Your task to perform on an android device: Add "razer blade" to the cart on costco.com Image 0: 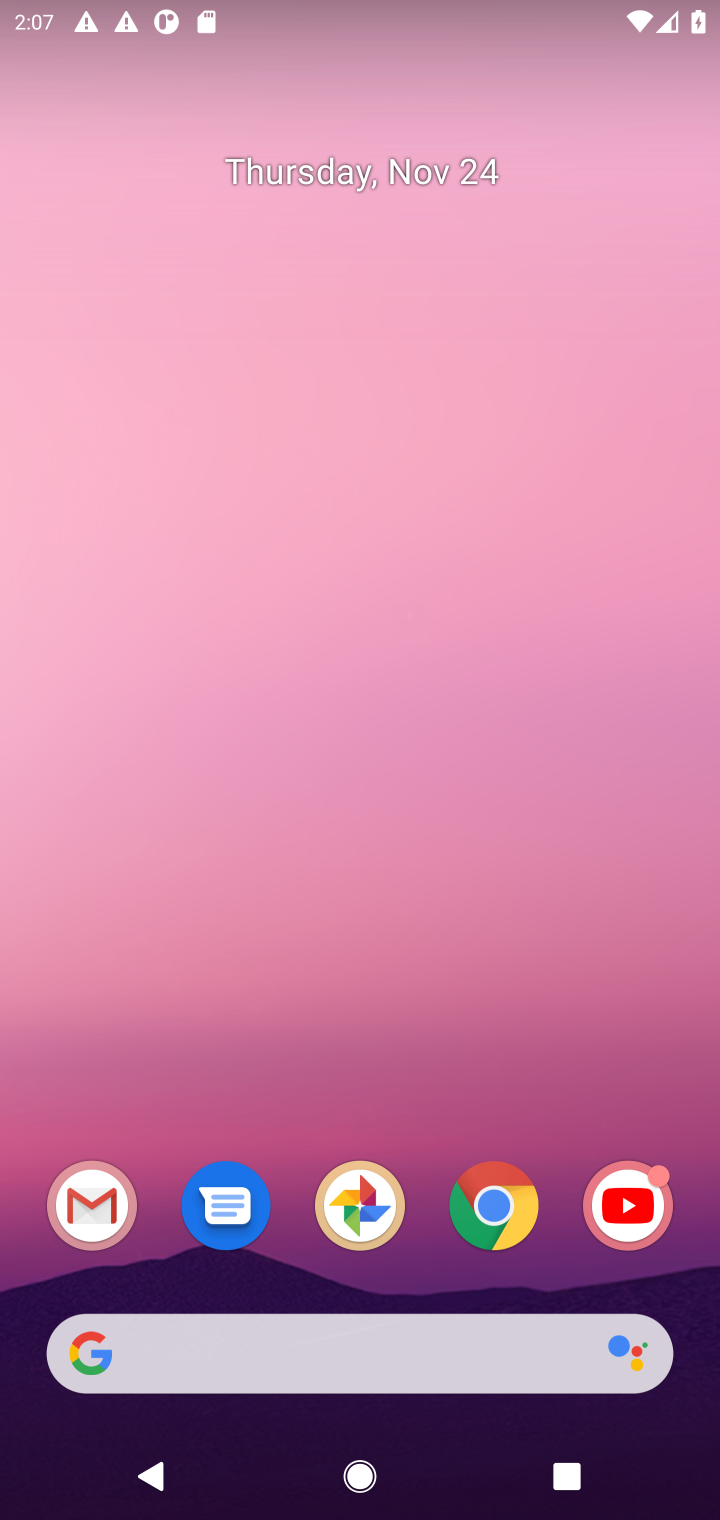
Step 0: press home button
Your task to perform on an android device: Add "razer blade" to the cart on costco.com Image 1: 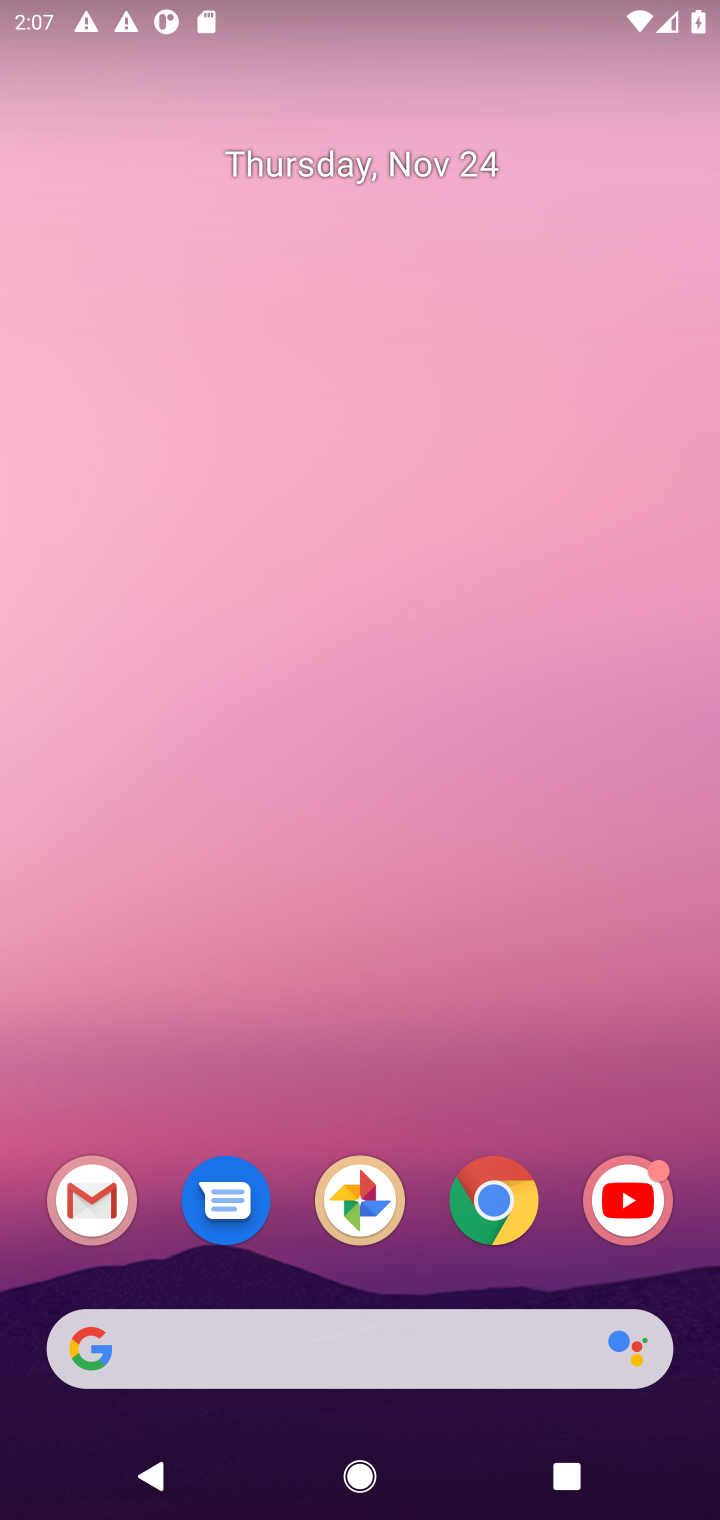
Step 1: click (435, 1367)
Your task to perform on an android device: Add "razer blade" to the cart on costco.com Image 2: 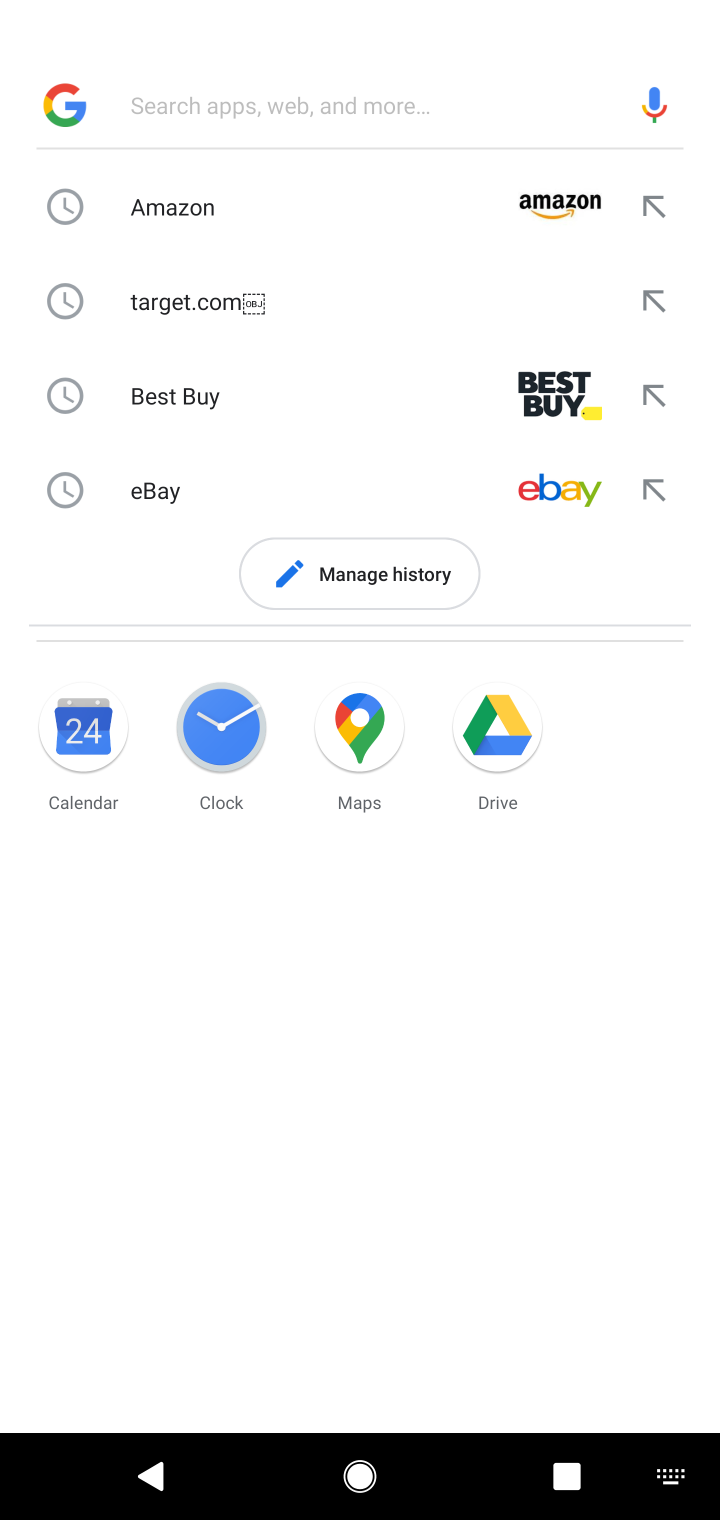
Step 2: type "costco"
Your task to perform on an android device: Add "razer blade" to the cart on costco.com Image 3: 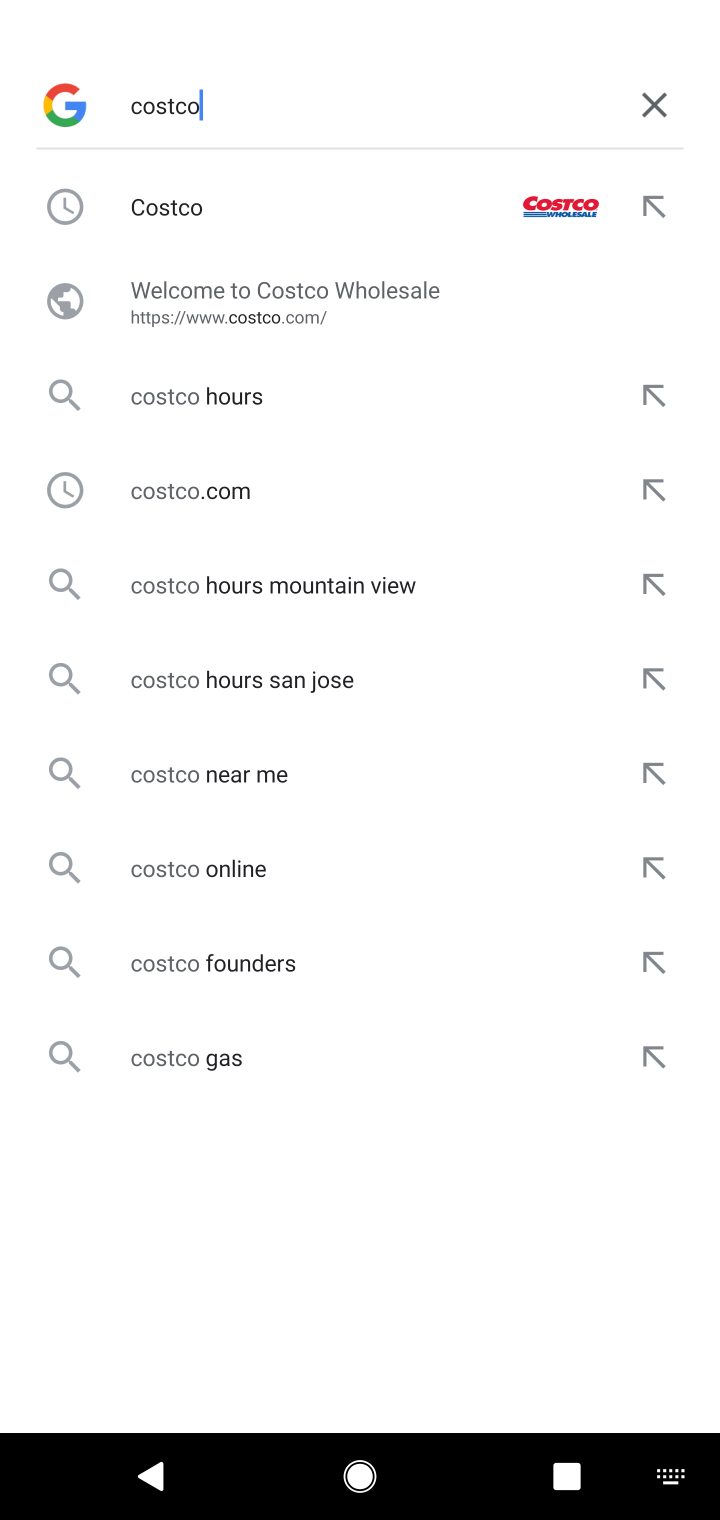
Step 3: click (159, 229)
Your task to perform on an android device: Add "razer blade" to the cart on costco.com Image 4: 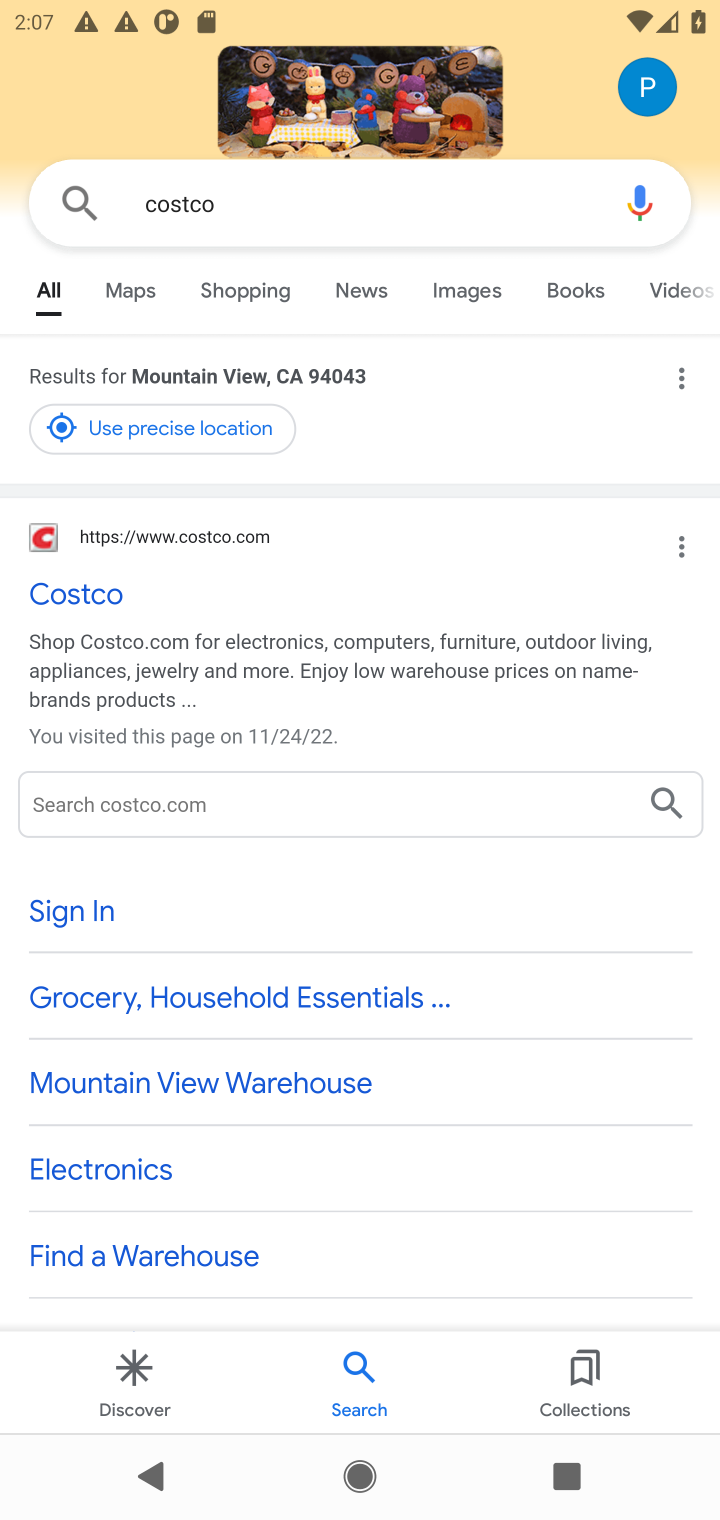
Step 4: click (40, 607)
Your task to perform on an android device: Add "razer blade" to the cart on costco.com Image 5: 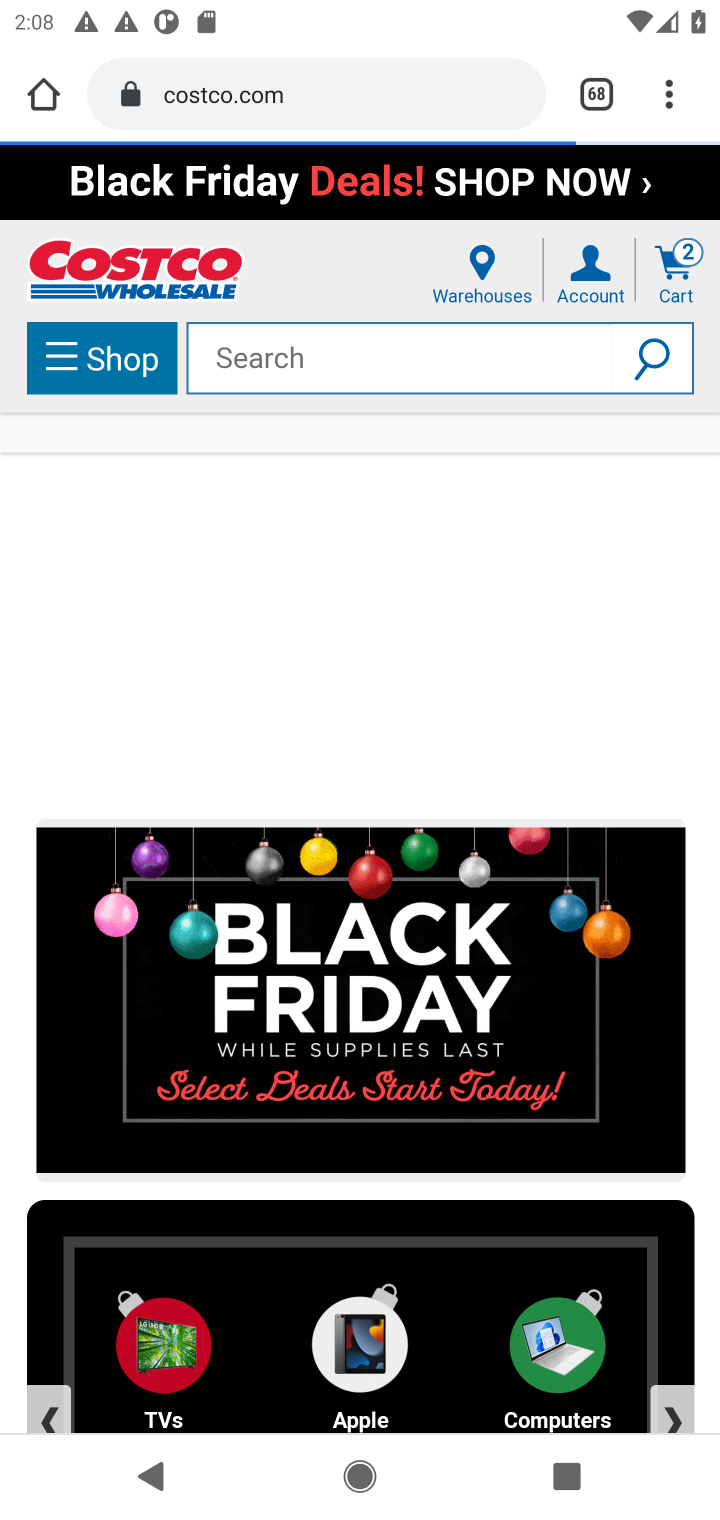
Step 5: click (444, 365)
Your task to perform on an android device: Add "razer blade" to the cart on costco.com Image 6: 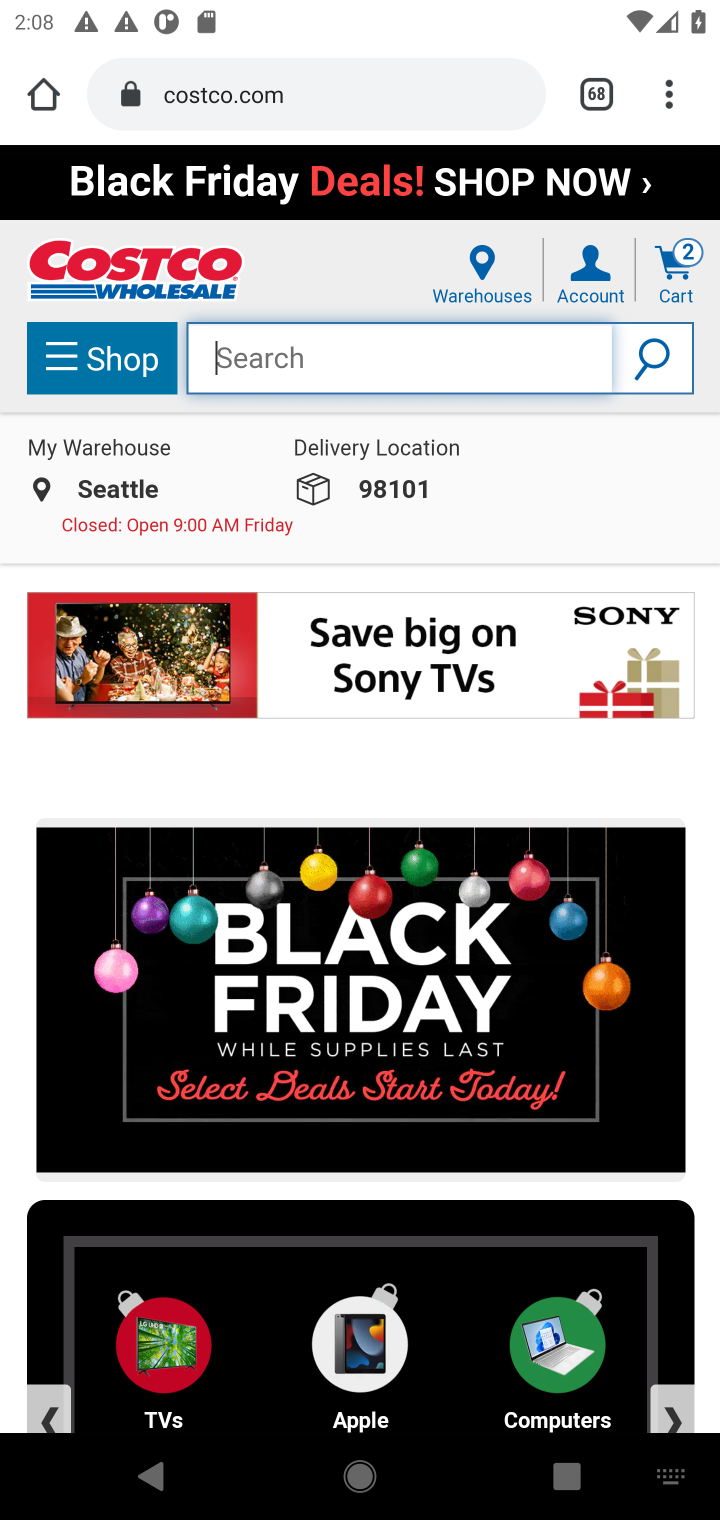
Step 6: type "razer blade"
Your task to perform on an android device: Add "razer blade" to the cart on costco.com Image 7: 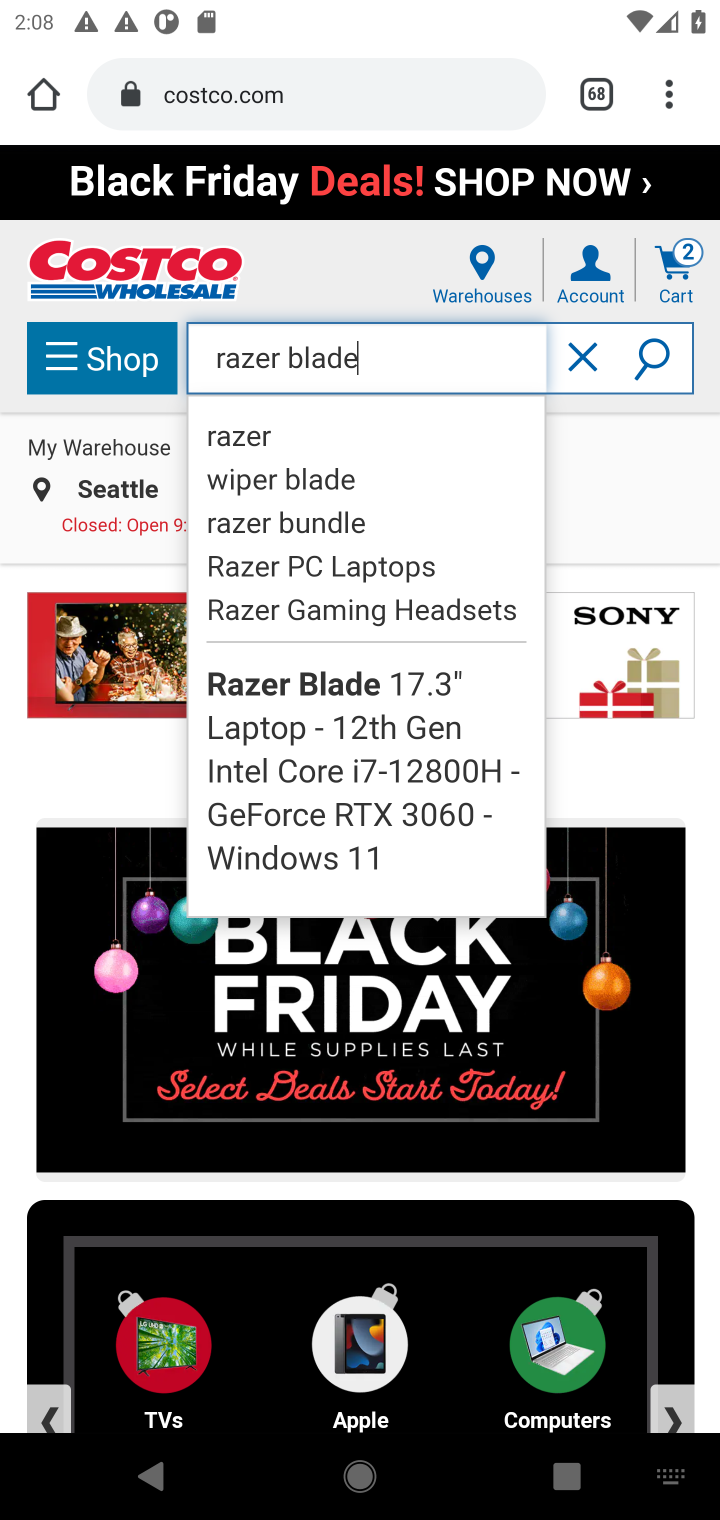
Step 7: click (240, 396)
Your task to perform on an android device: Add "razer blade" to the cart on costco.com Image 8: 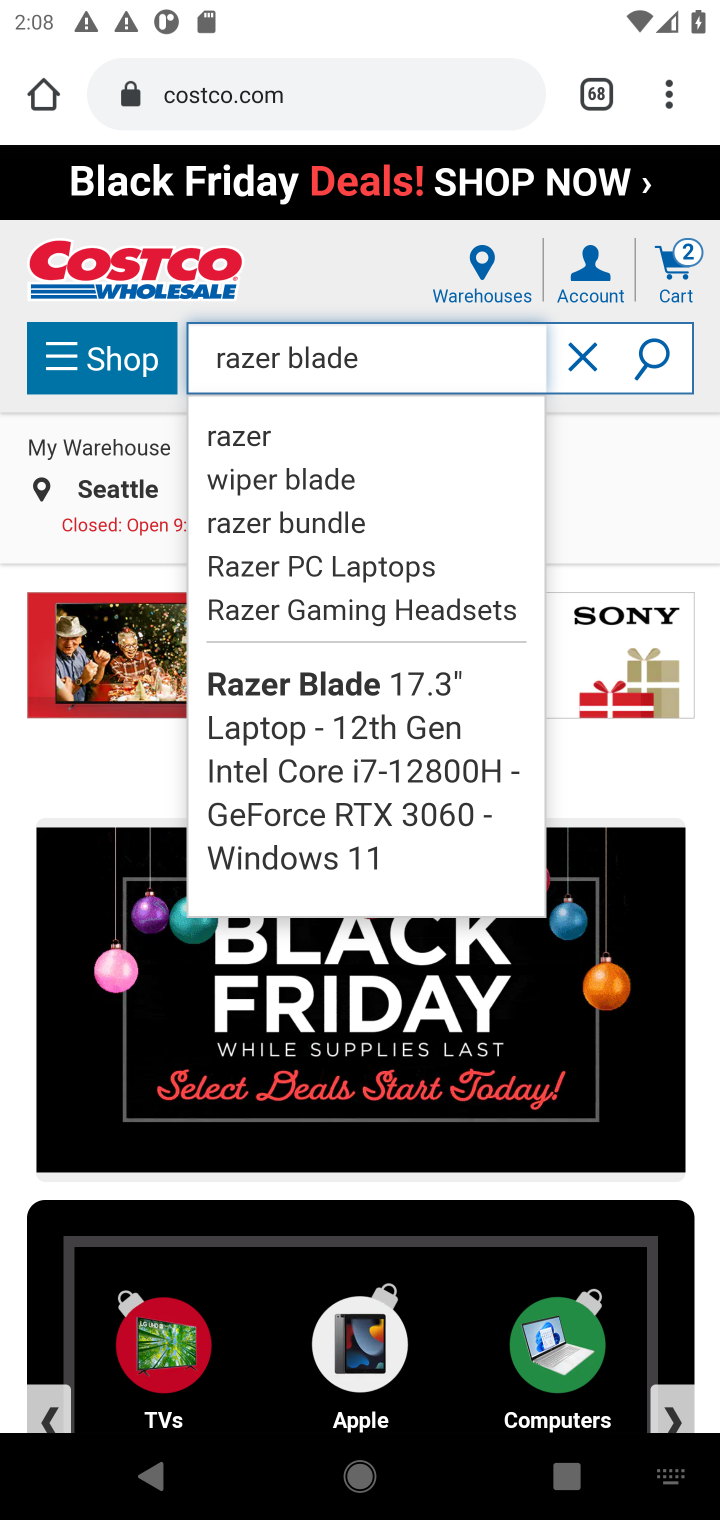
Step 8: click (244, 418)
Your task to perform on an android device: Add "razer blade" to the cart on costco.com Image 9: 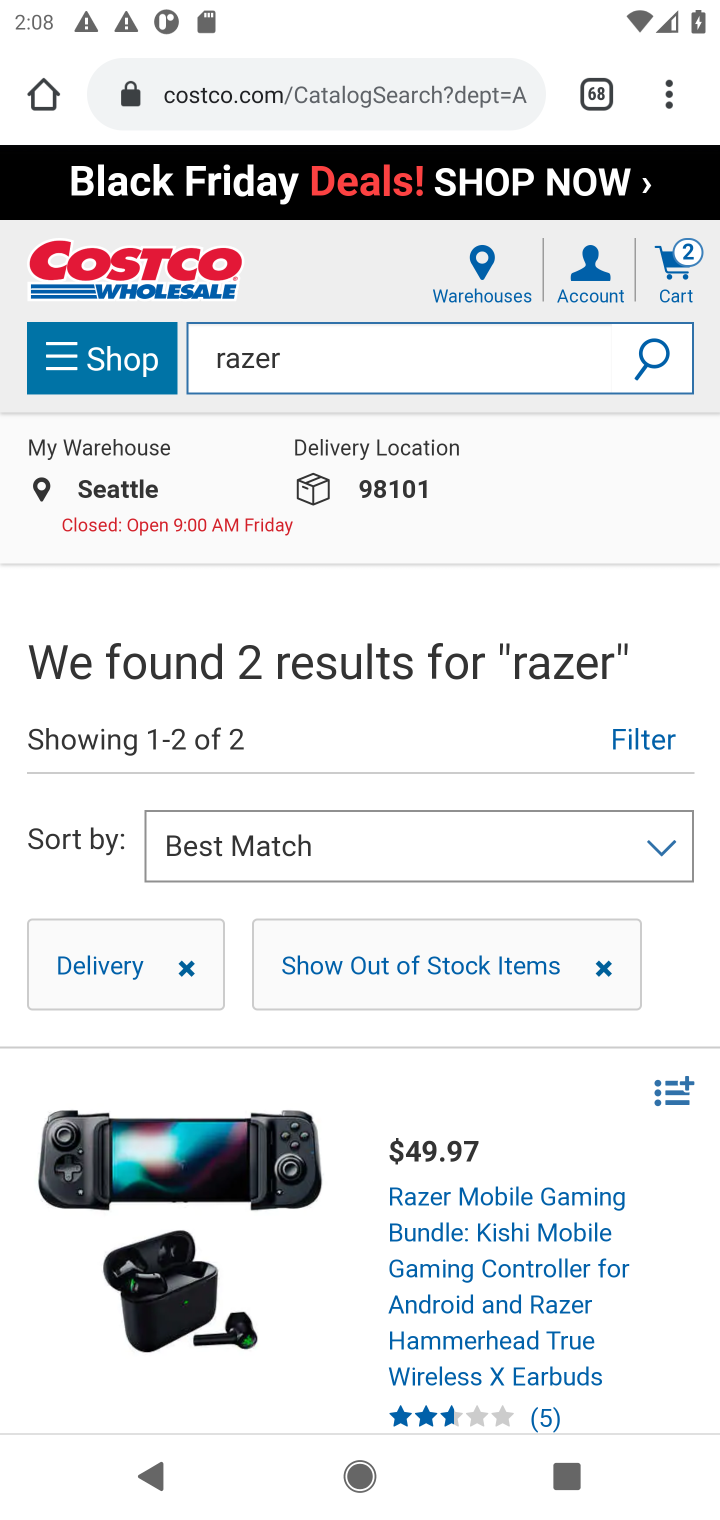
Step 9: click (672, 367)
Your task to perform on an android device: Add "razer blade" to the cart on costco.com Image 10: 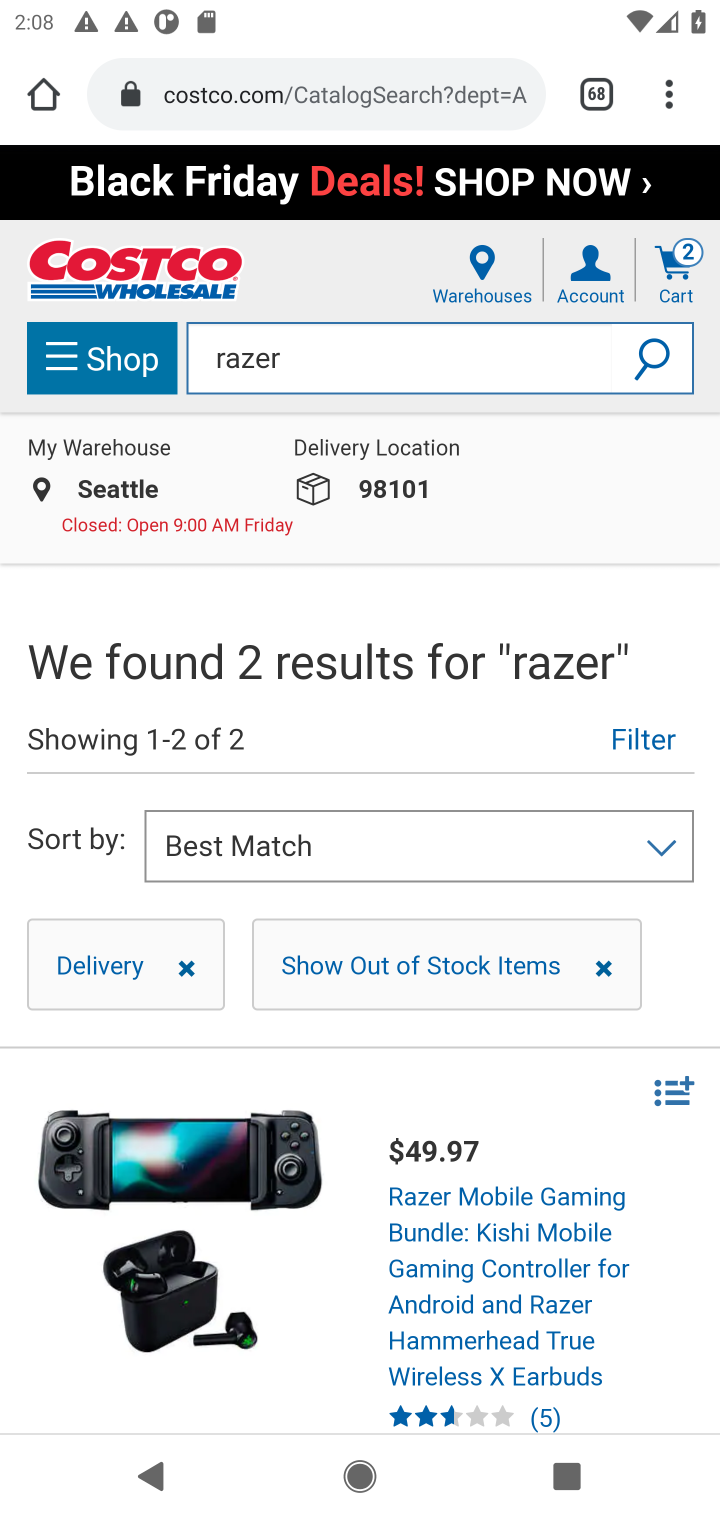
Step 10: task complete